Your task to perform on an android device: open app "Life360: Find Family & Friends" (install if not already installed) Image 0: 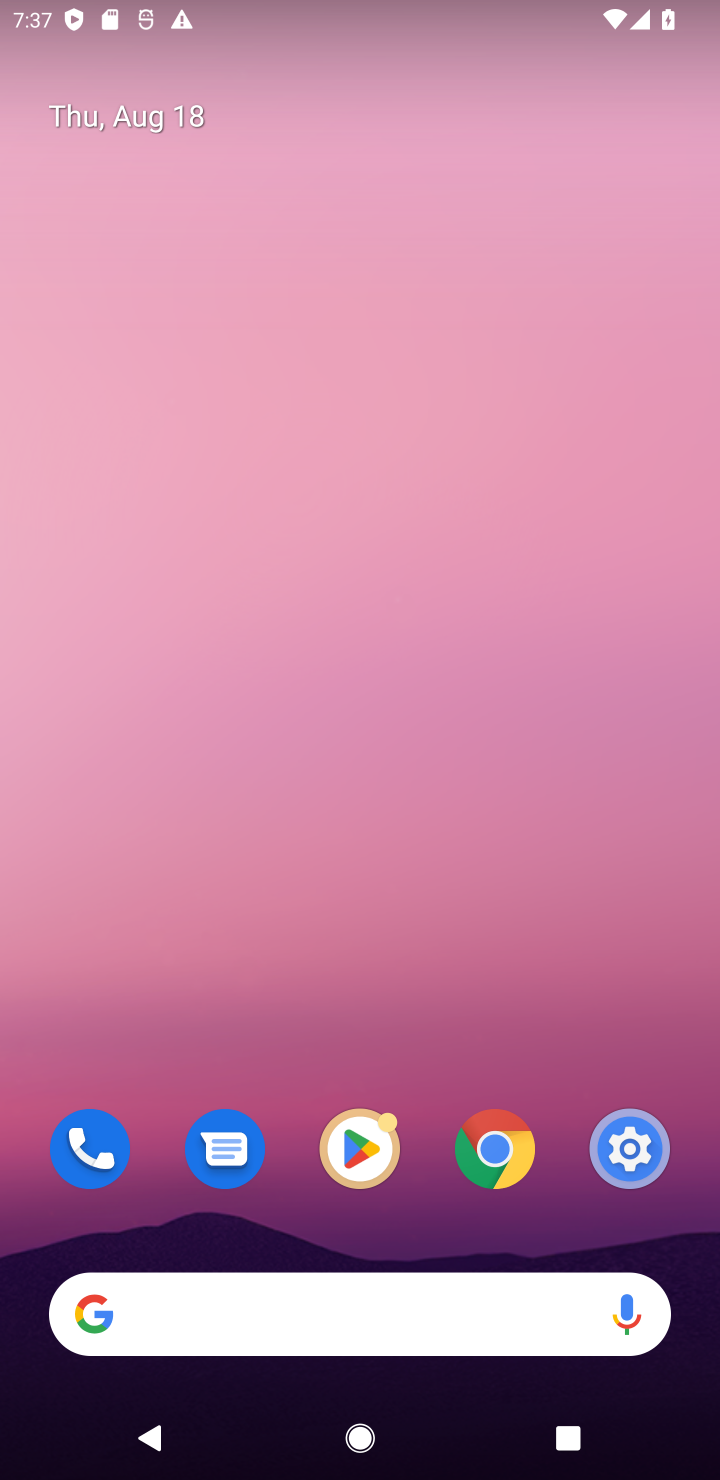
Step 0: drag from (663, 1166) to (305, 36)
Your task to perform on an android device: open app "Life360: Find Family & Friends" (install if not already installed) Image 1: 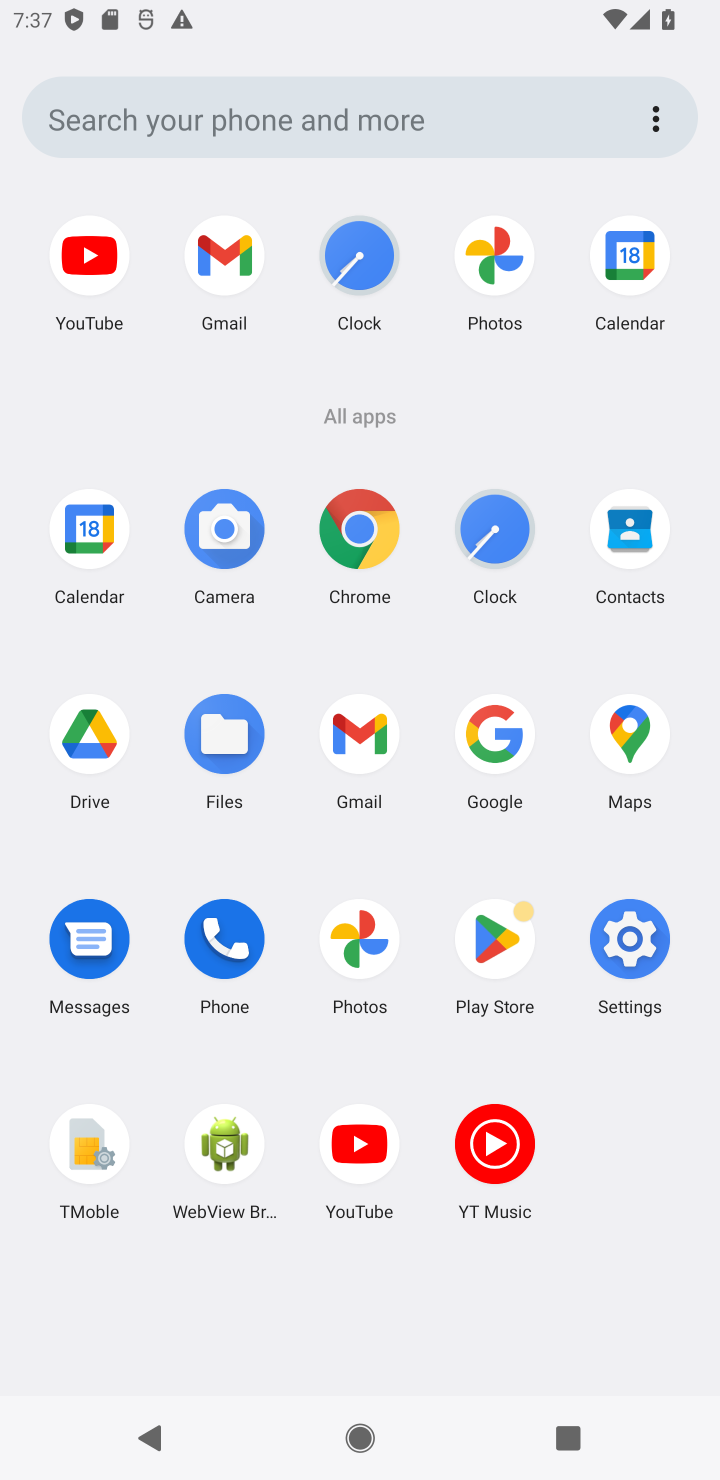
Step 1: click (497, 955)
Your task to perform on an android device: open app "Life360: Find Family & Friends" (install if not already installed) Image 2: 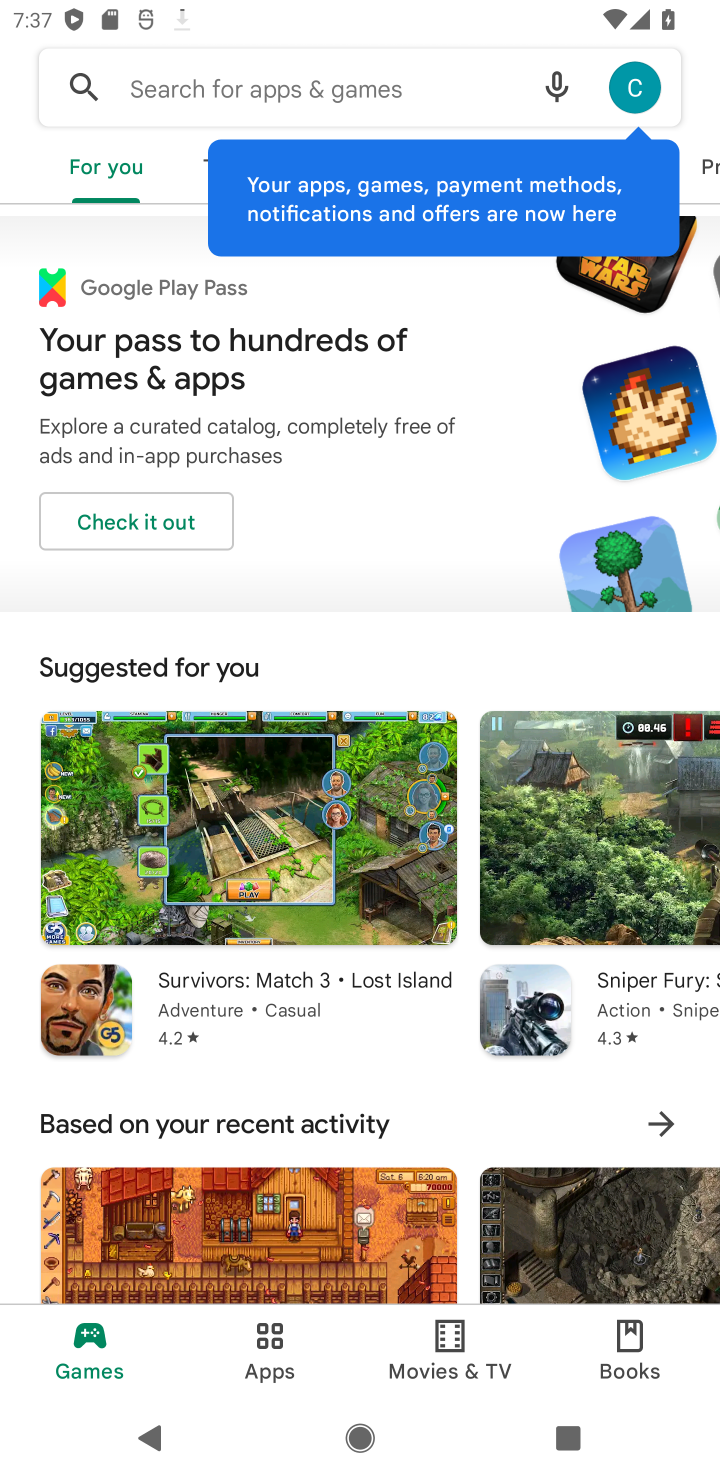
Step 2: click (188, 92)
Your task to perform on an android device: open app "Life360: Find Family & Friends" (install if not already installed) Image 3: 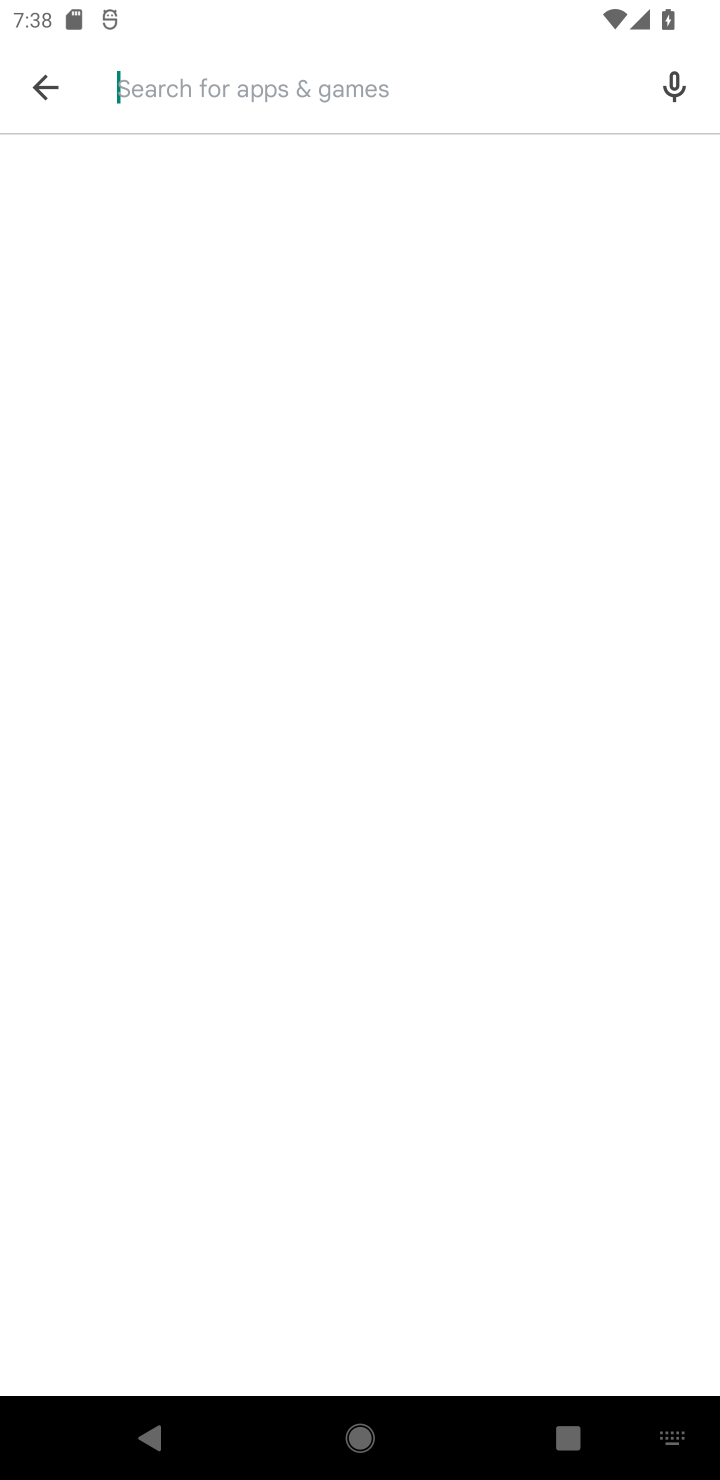
Step 3: type "Life360: Find Family & Friends"
Your task to perform on an android device: open app "Life360: Find Family & Friends" (install if not already installed) Image 4: 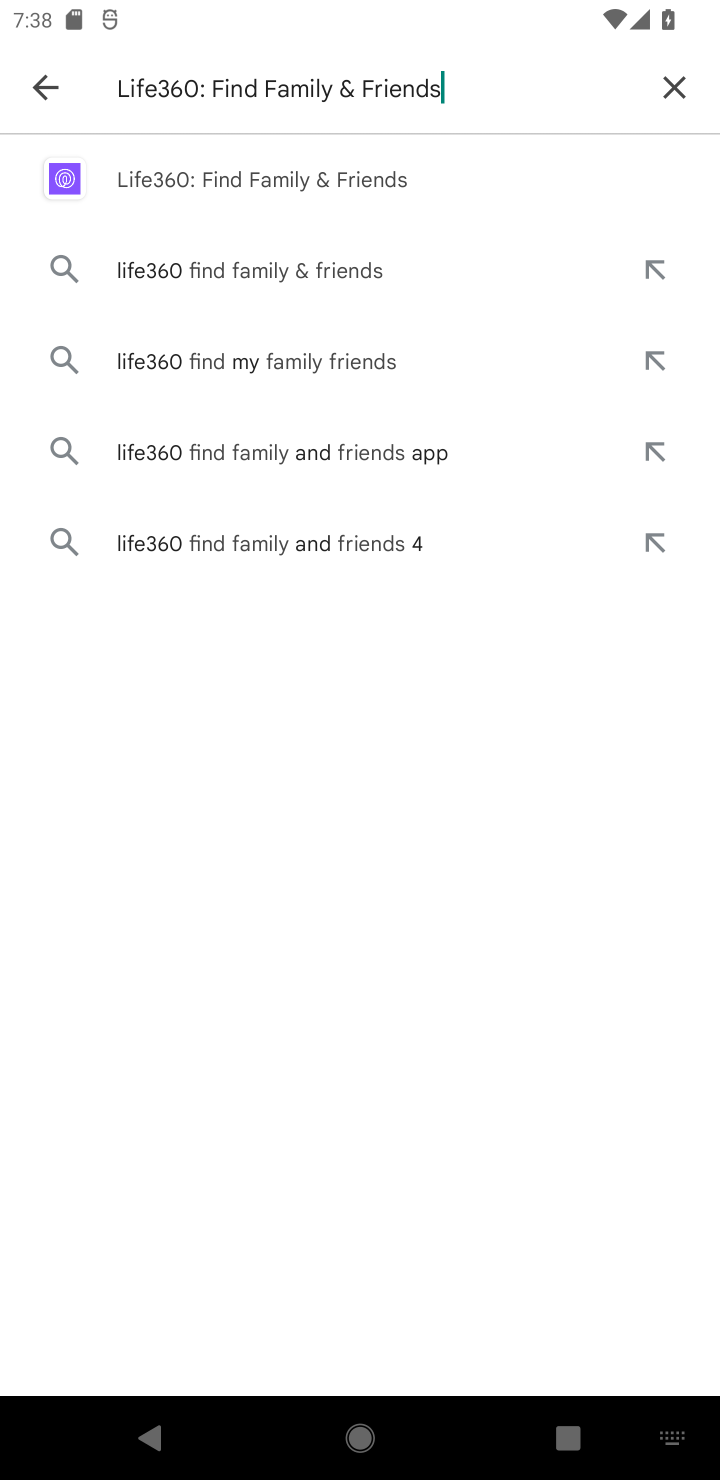
Step 4: click (298, 189)
Your task to perform on an android device: open app "Life360: Find Family & Friends" (install if not already installed) Image 5: 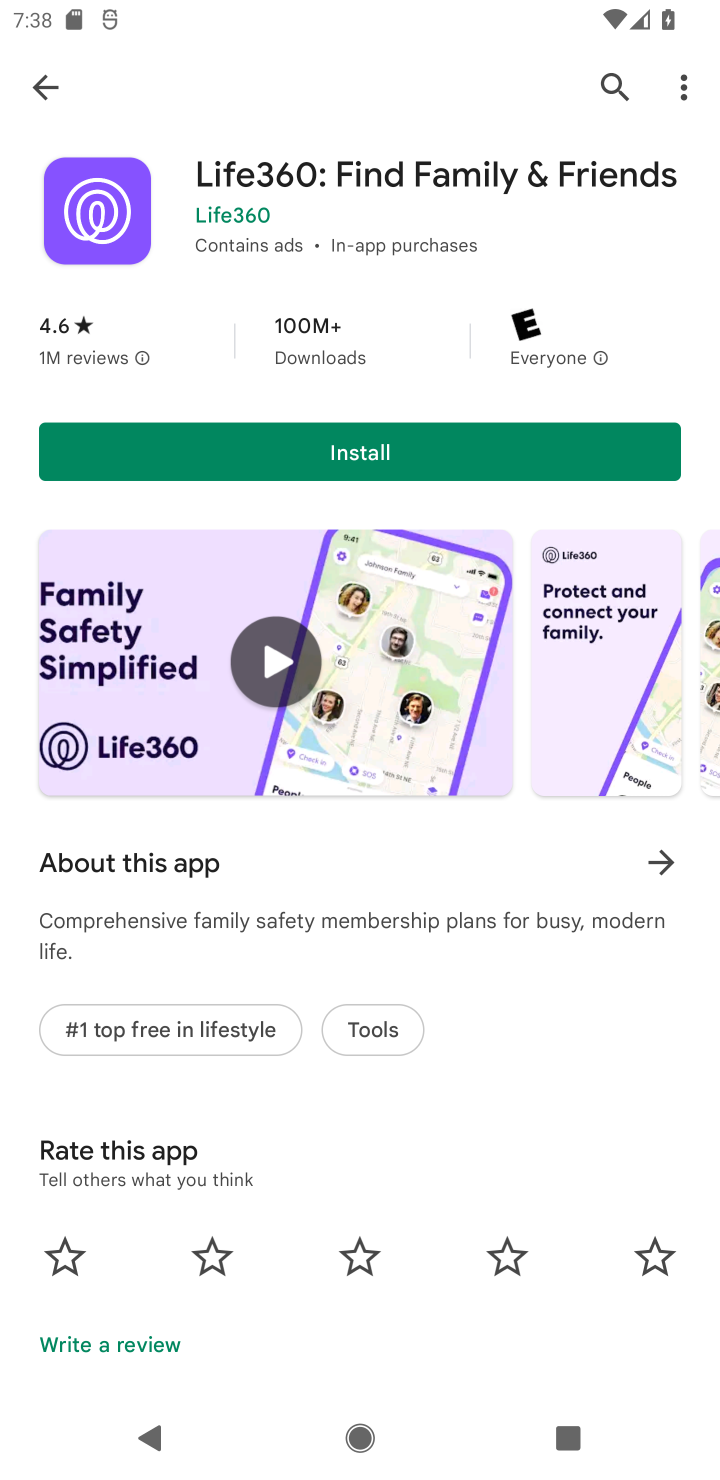
Step 5: task complete